Your task to perform on an android device: Go to wifi settings Image 0: 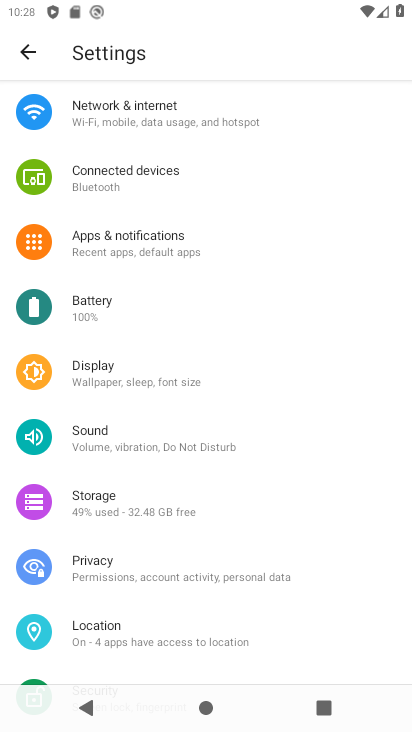
Step 0: click (230, 114)
Your task to perform on an android device: Go to wifi settings Image 1: 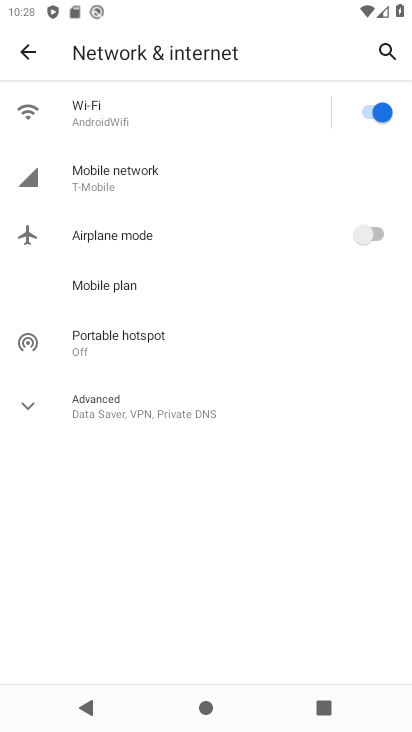
Step 1: click (89, 105)
Your task to perform on an android device: Go to wifi settings Image 2: 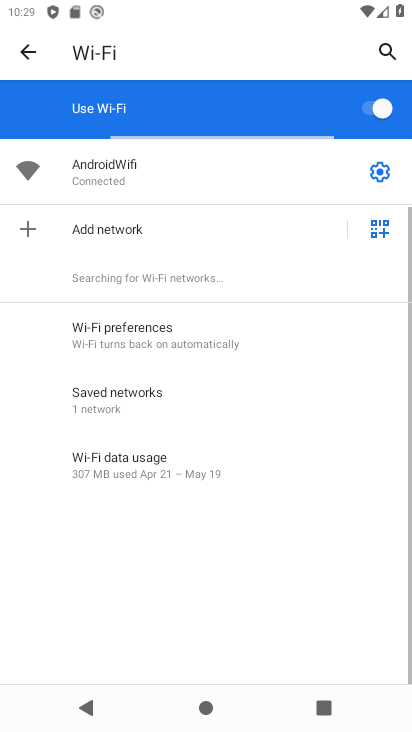
Step 2: click (382, 167)
Your task to perform on an android device: Go to wifi settings Image 3: 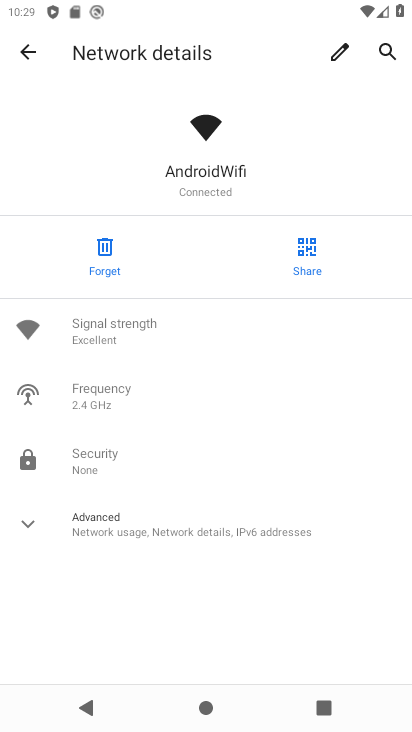
Step 3: task complete